Your task to perform on an android device: Open Google Chrome Image 0: 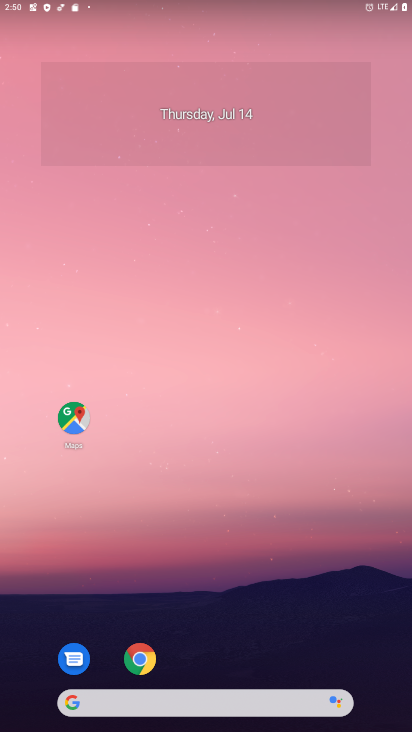
Step 0: press home button
Your task to perform on an android device: Open Google Chrome Image 1: 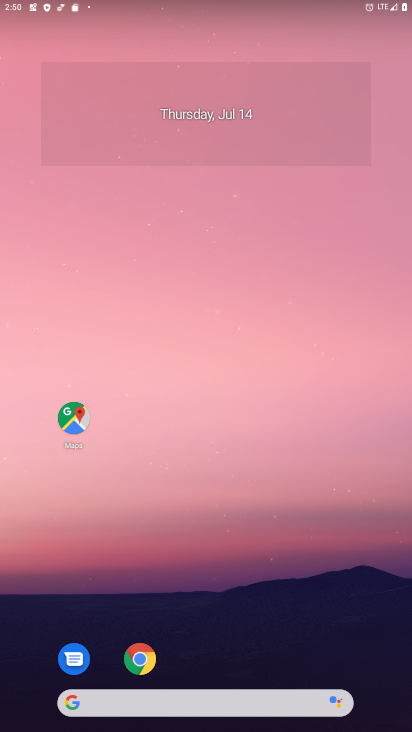
Step 1: drag from (312, 625) to (282, 137)
Your task to perform on an android device: Open Google Chrome Image 2: 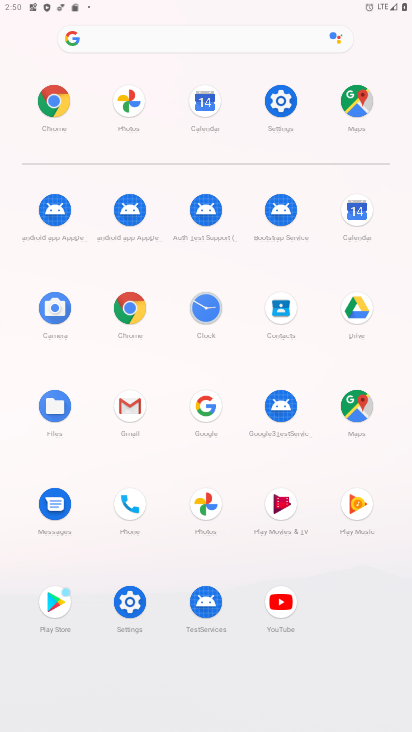
Step 2: click (37, 95)
Your task to perform on an android device: Open Google Chrome Image 3: 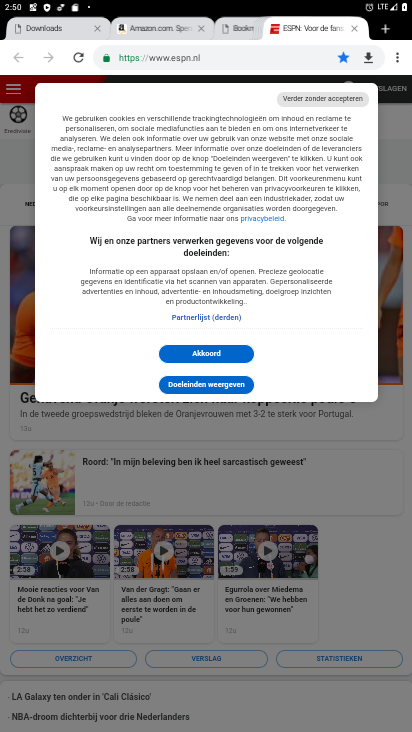
Step 3: click (209, 355)
Your task to perform on an android device: Open Google Chrome Image 4: 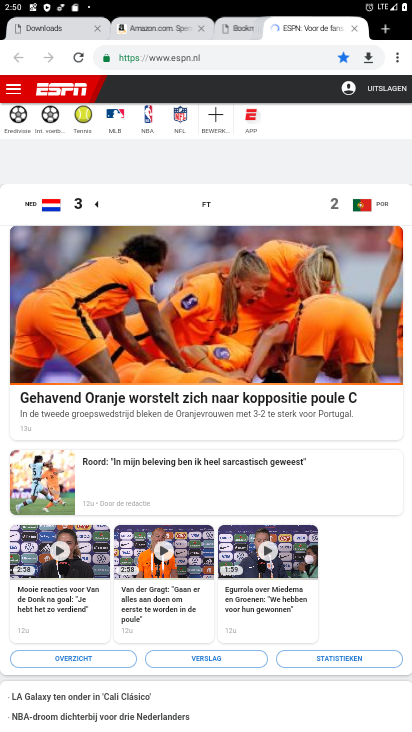
Step 4: task complete